Your task to perform on an android device: Open the contacts app Image 0: 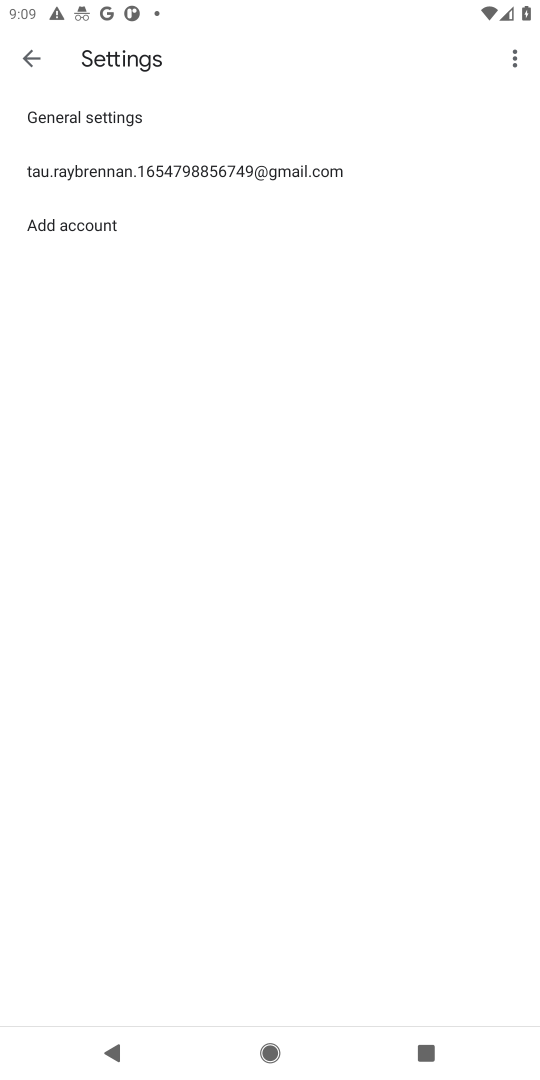
Step 0: press home button
Your task to perform on an android device: Open the contacts app Image 1: 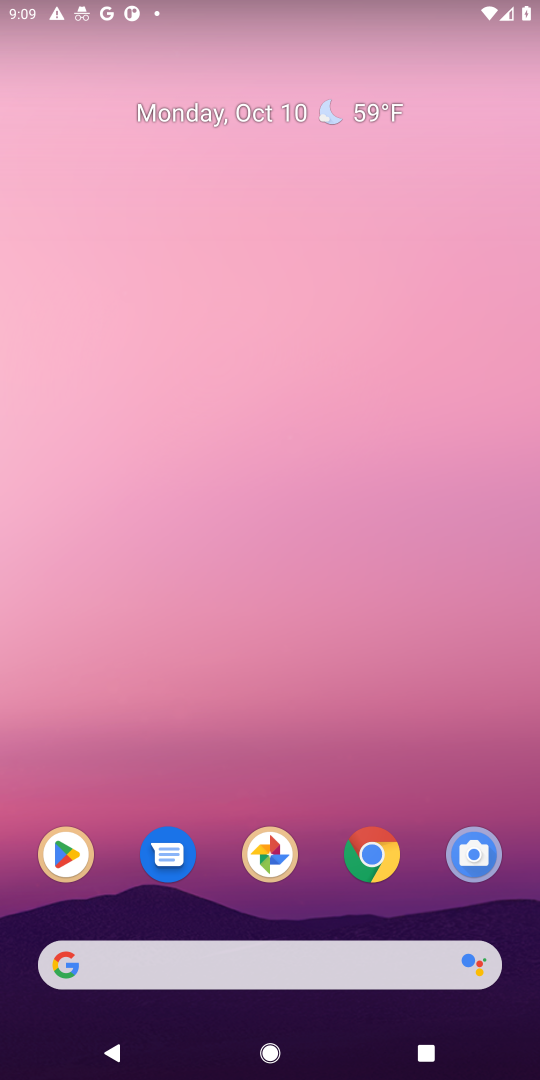
Step 1: drag from (215, 948) to (246, 105)
Your task to perform on an android device: Open the contacts app Image 2: 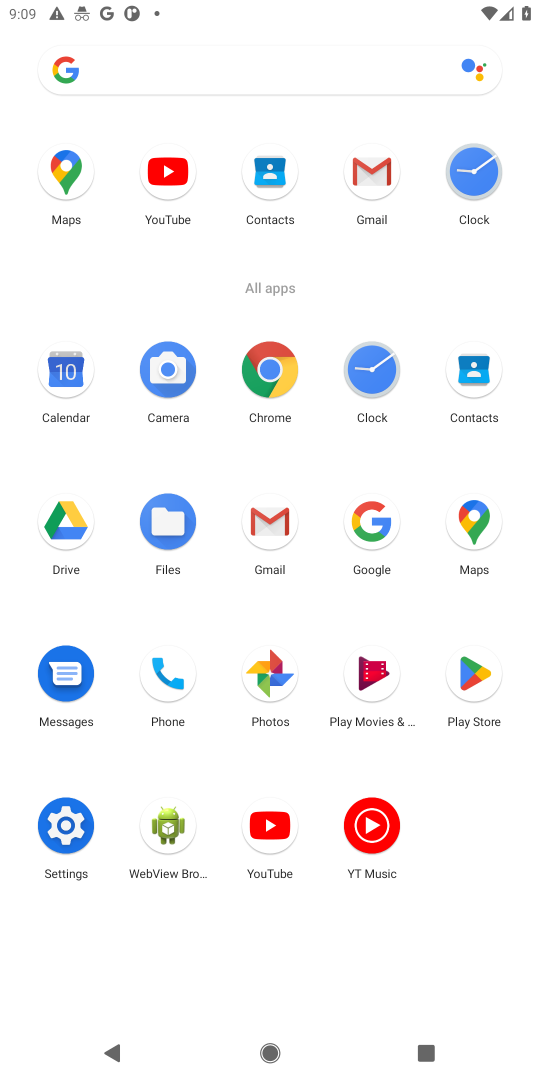
Step 2: click (488, 375)
Your task to perform on an android device: Open the contacts app Image 3: 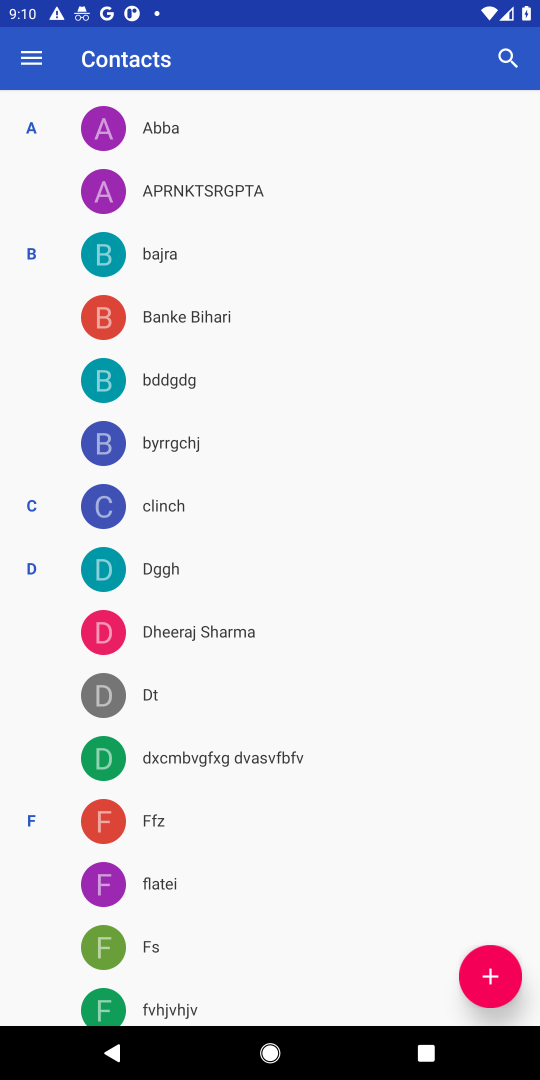
Step 3: task complete